Your task to perform on an android device: turn off translation in the chrome app Image 0: 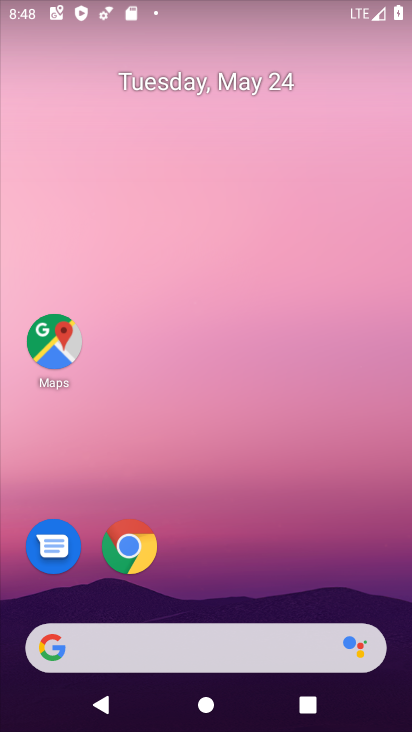
Step 0: click (132, 541)
Your task to perform on an android device: turn off translation in the chrome app Image 1: 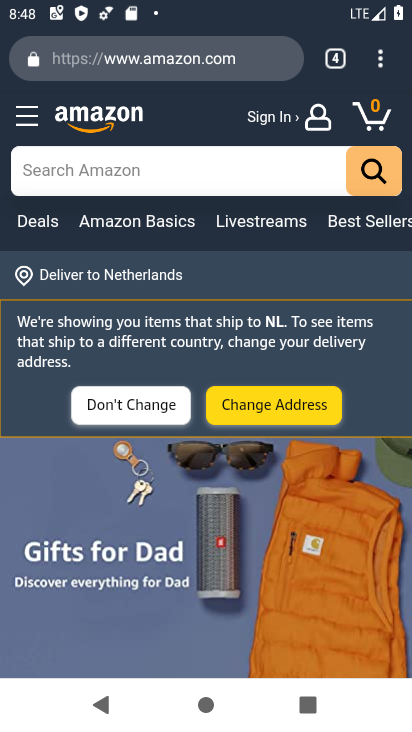
Step 1: click (382, 72)
Your task to perform on an android device: turn off translation in the chrome app Image 2: 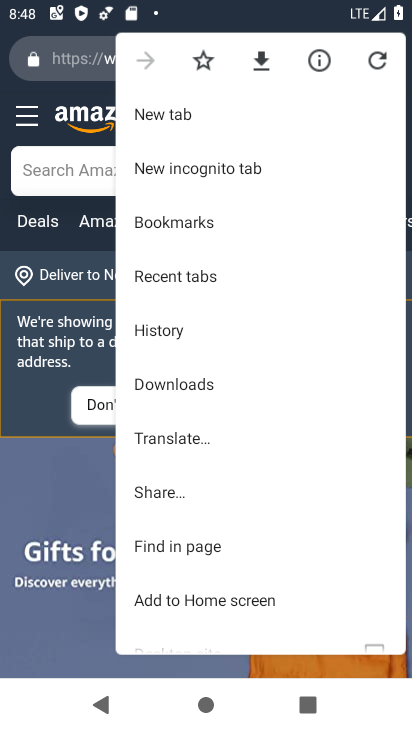
Step 2: drag from (261, 478) to (245, 192)
Your task to perform on an android device: turn off translation in the chrome app Image 3: 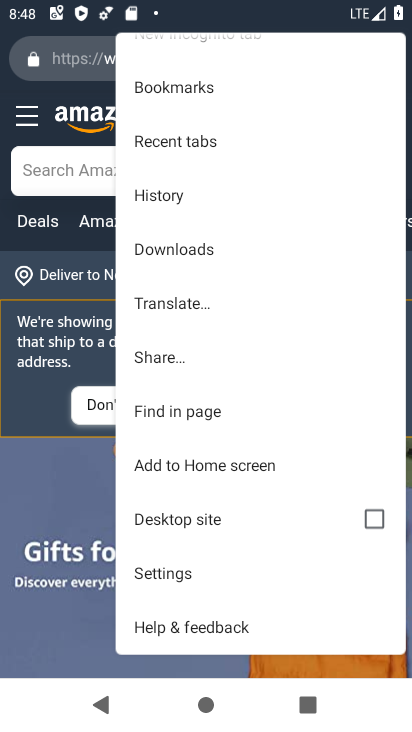
Step 3: click (210, 567)
Your task to perform on an android device: turn off translation in the chrome app Image 4: 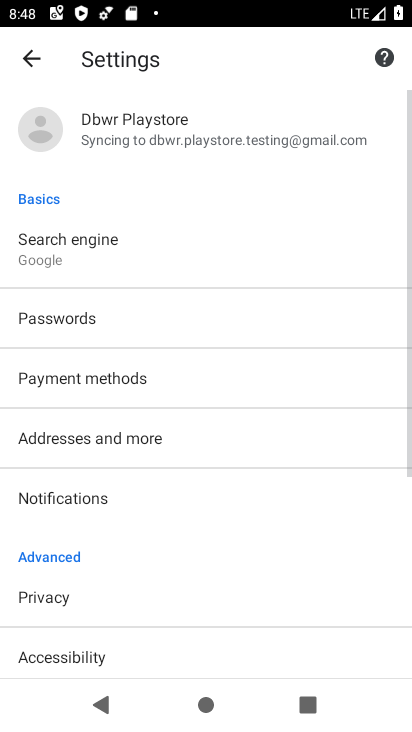
Step 4: drag from (215, 546) to (223, 325)
Your task to perform on an android device: turn off translation in the chrome app Image 5: 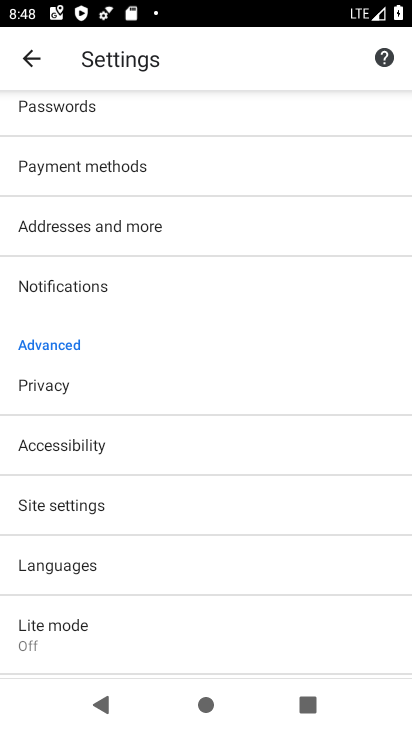
Step 5: click (180, 564)
Your task to perform on an android device: turn off translation in the chrome app Image 6: 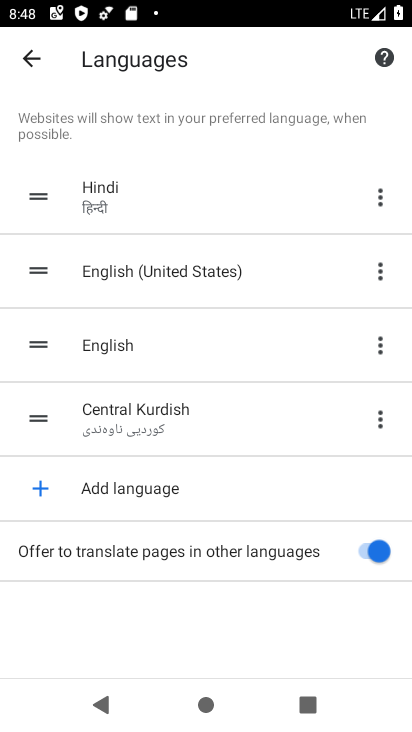
Step 6: click (370, 542)
Your task to perform on an android device: turn off translation in the chrome app Image 7: 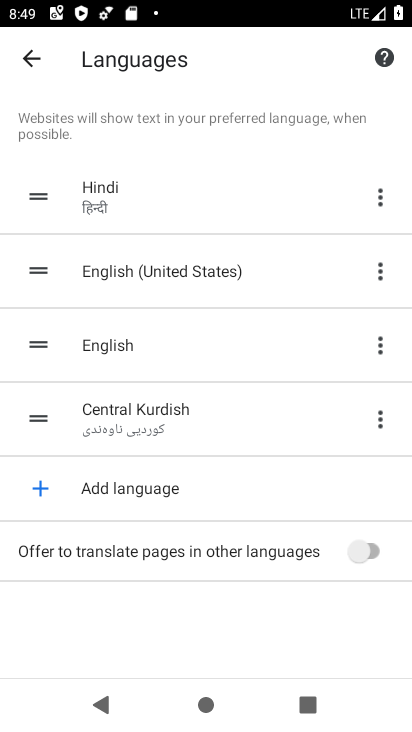
Step 7: task complete